Your task to perform on an android device: add a label to a message in the gmail app Image 0: 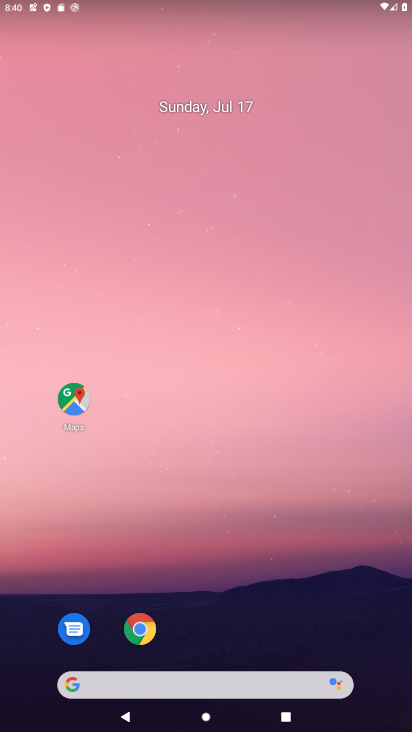
Step 0: drag from (234, 723) to (234, 145)
Your task to perform on an android device: add a label to a message in the gmail app Image 1: 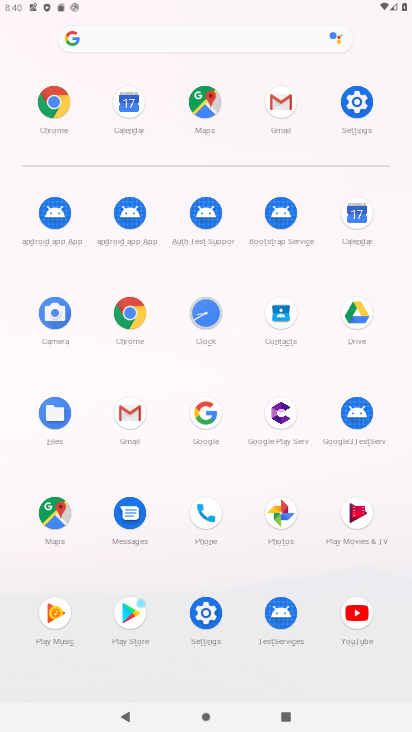
Step 1: click (126, 413)
Your task to perform on an android device: add a label to a message in the gmail app Image 2: 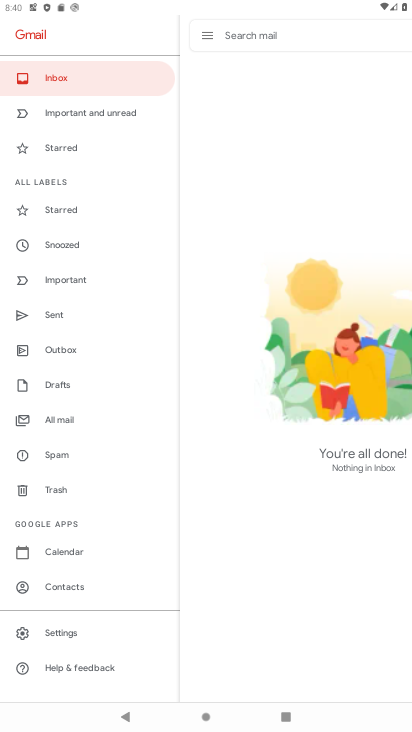
Step 2: click (69, 71)
Your task to perform on an android device: add a label to a message in the gmail app Image 3: 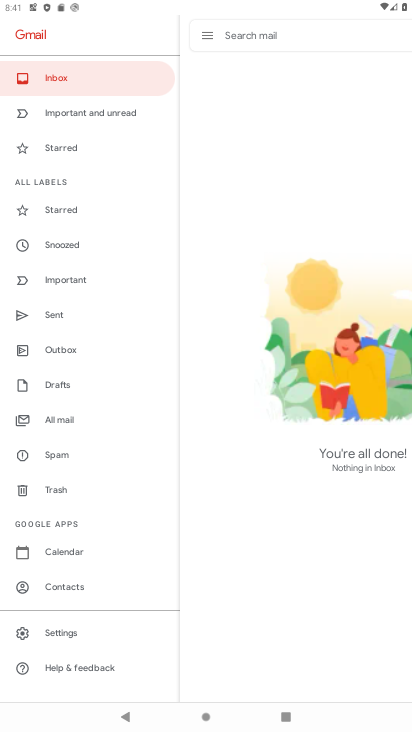
Step 3: task complete